Your task to perform on an android device: turn off notifications settings in the gmail app Image 0: 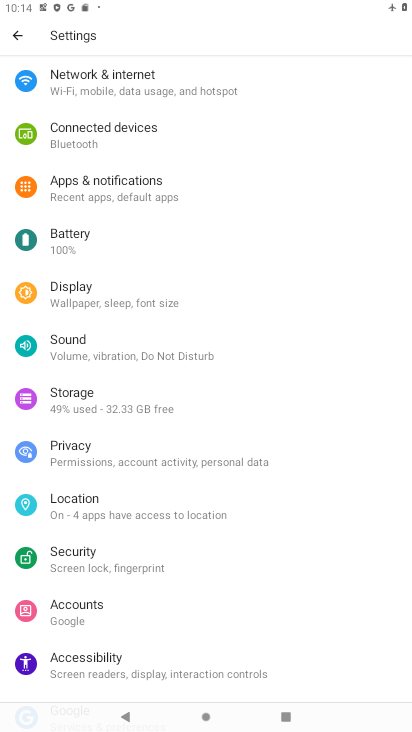
Step 0: press home button
Your task to perform on an android device: turn off notifications settings in the gmail app Image 1: 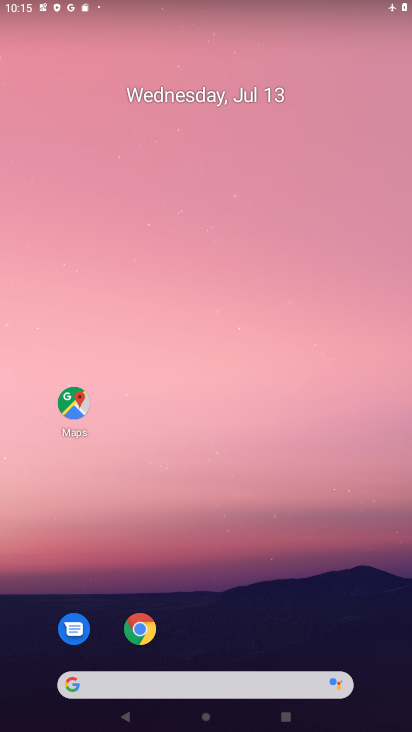
Step 1: drag from (272, 625) to (293, 84)
Your task to perform on an android device: turn off notifications settings in the gmail app Image 2: 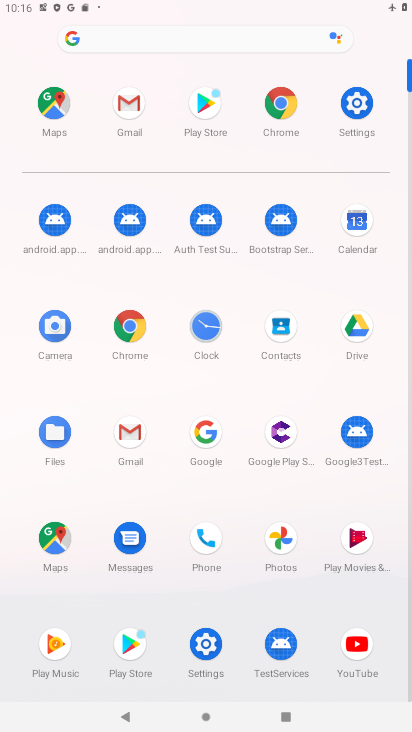
Step 2: click (123, 105)
Your task to perform on an android device: turn off notifications settings in the gmail app Image 3: 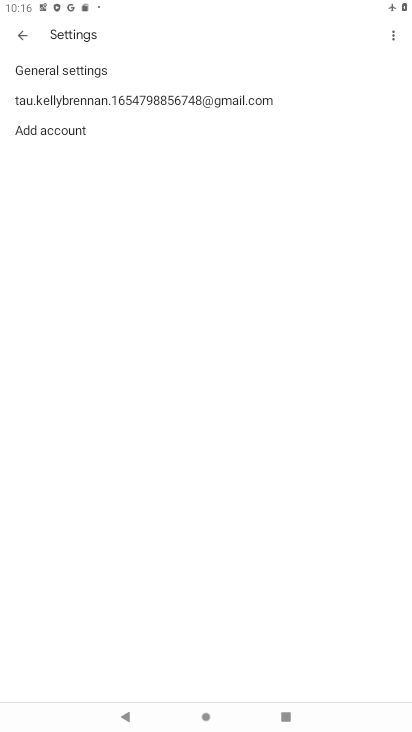
Step 3: click (86, 96)
Your task to perform on an android device: turn off notifications settings in the gmail app Image 4: 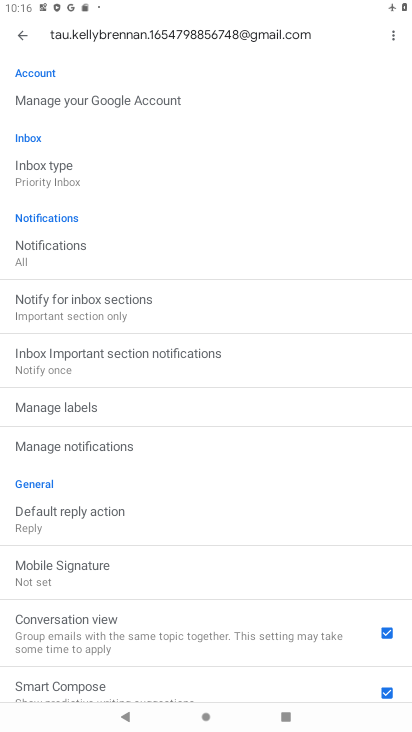
Step 4: task complete